Your task to perform on an android device: Show me popular videos on Youtube Image 0: 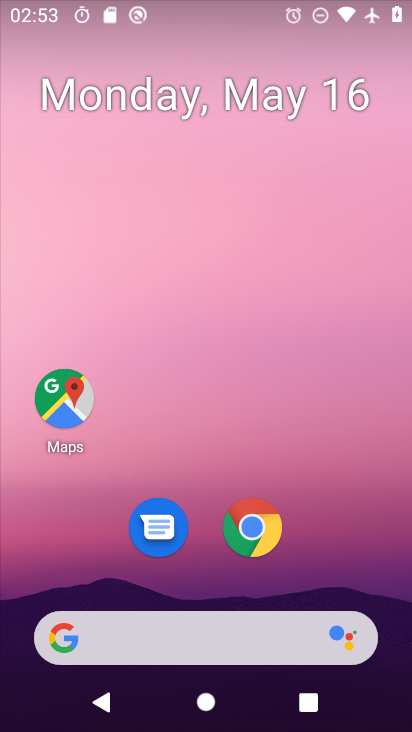
Step 0: drag from (135, 645) to (254, 186)
Your task to perform on an android device: Show me popular videos on Youtube Image 1: 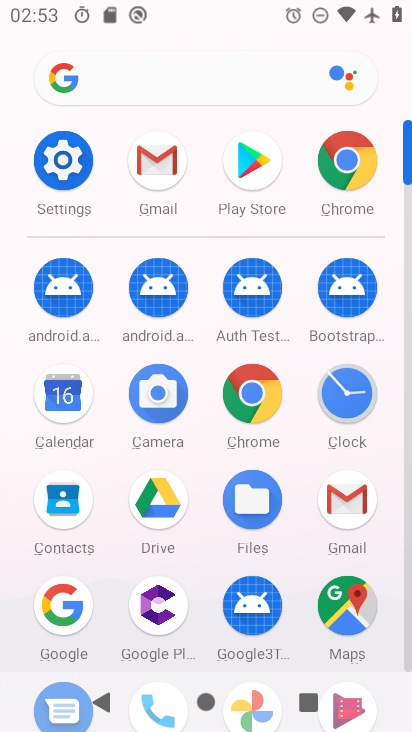
Step 1: drag from (212, 605) to (332, 268)
Your task to perform on an android device: Show me popular videos on Youtube Image 2: 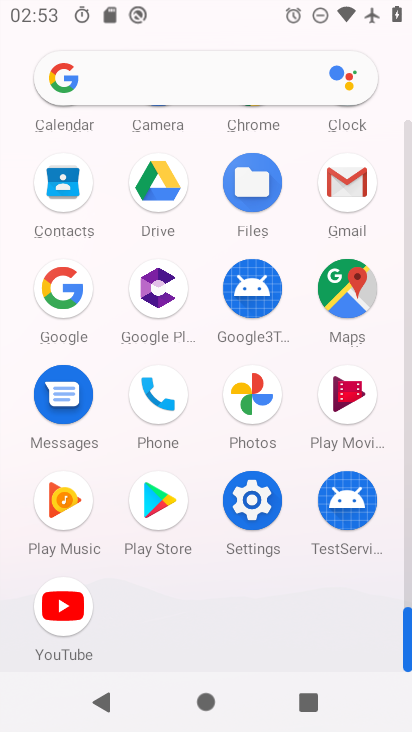
Step 2: click (56, 607)
Your task to perform on an android device: Show me popular videos on Youtube Image 3: 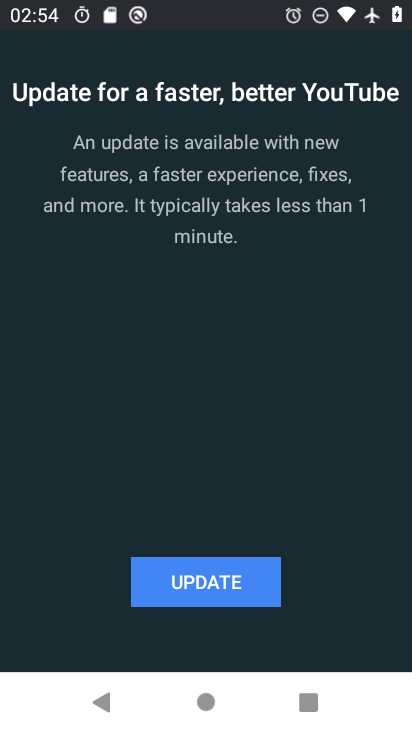
Step 3: click (191, 573)
Your task to perform on an android device: Show me popular videos on Youtube Image 4: 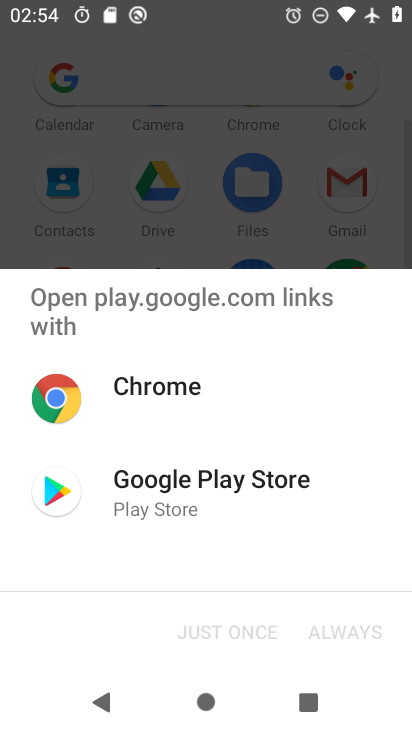
Step 4: click (155, 494)
Your task to perform on an android device: Show me popular videos on Youtube Image 5: 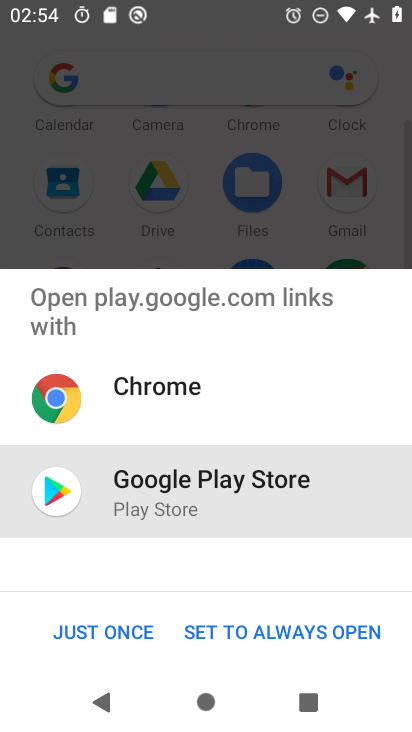
Step 5: click (118, 635)
Your task to perform on an android device: Show me popular videos on Youtube Image 6: 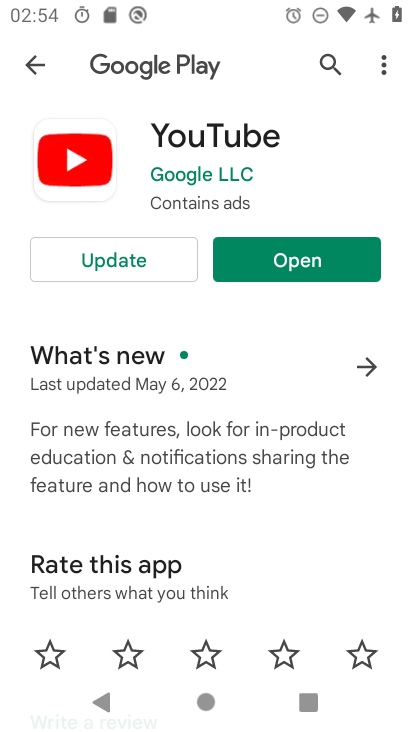
Step 6: click (118, 262)
Your task to perform on an android device: Show me popular videos on Youtube Image 7: 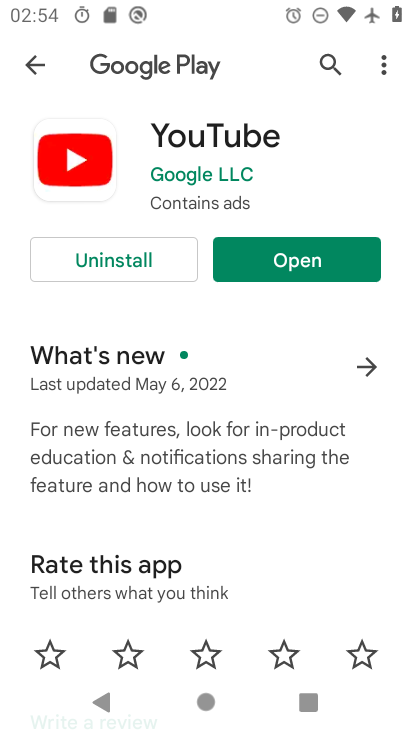
Step 7: click (267, 258)
Your task to perform on an android device: Show me popular videos on Youtube Image 8: 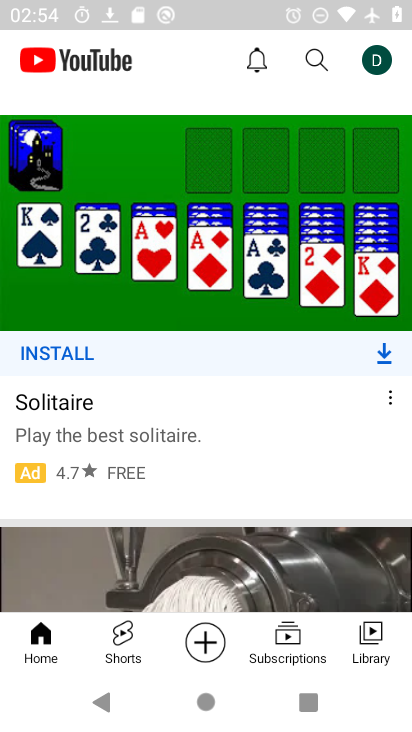
Step 8: task complete